Your task to perform on an android device: Clear the cart on amazon. Add "duracell triple a" to the cart on amazon, then select checkout. Image 0: 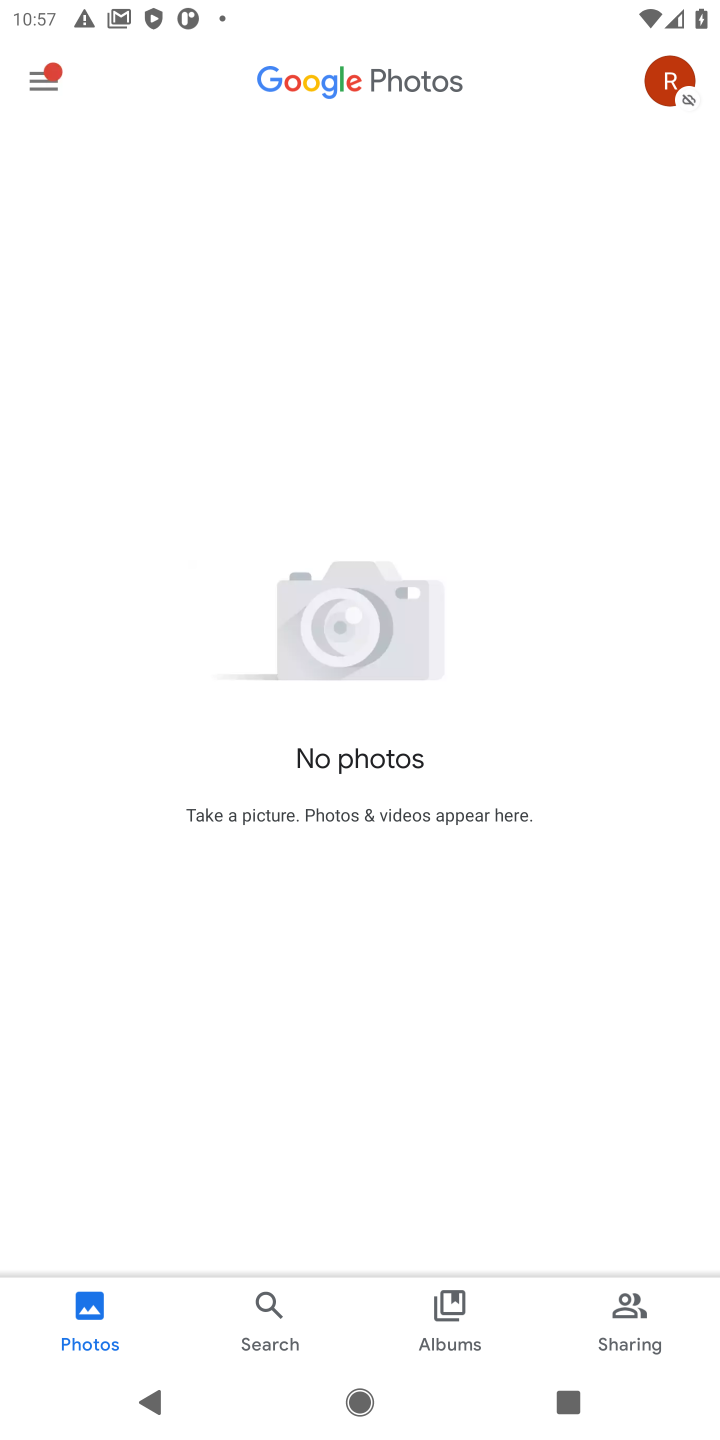
Step 0: press home button
Your task to perform on an android device: Clear the cart on amazon. Add "duracell triple a" to the cart on amazon, then select checkout. Image 1: 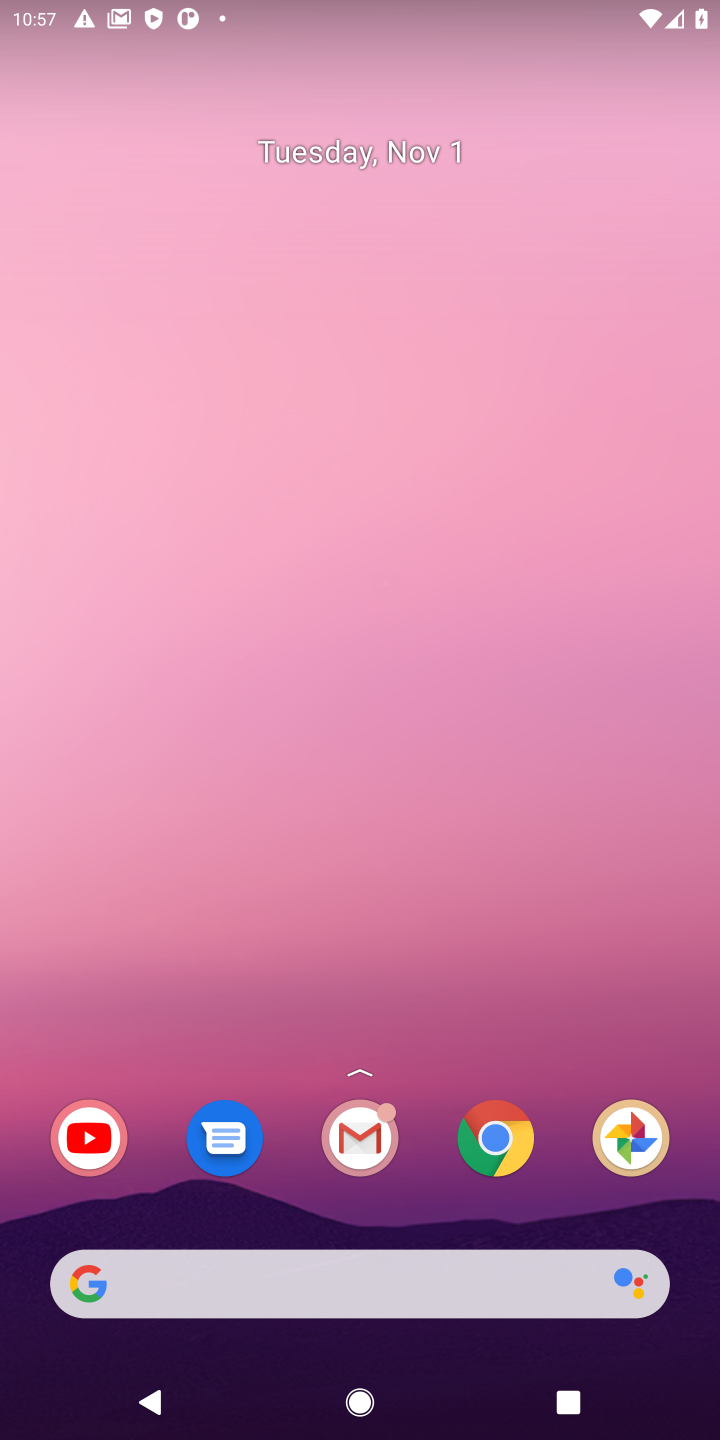
Step 1: click (482, 1135)
Your task to perform on an android device: Clear the cart on amazon. Add "duracell triple a" to the cart on amazon, then select checkout. Image 2: 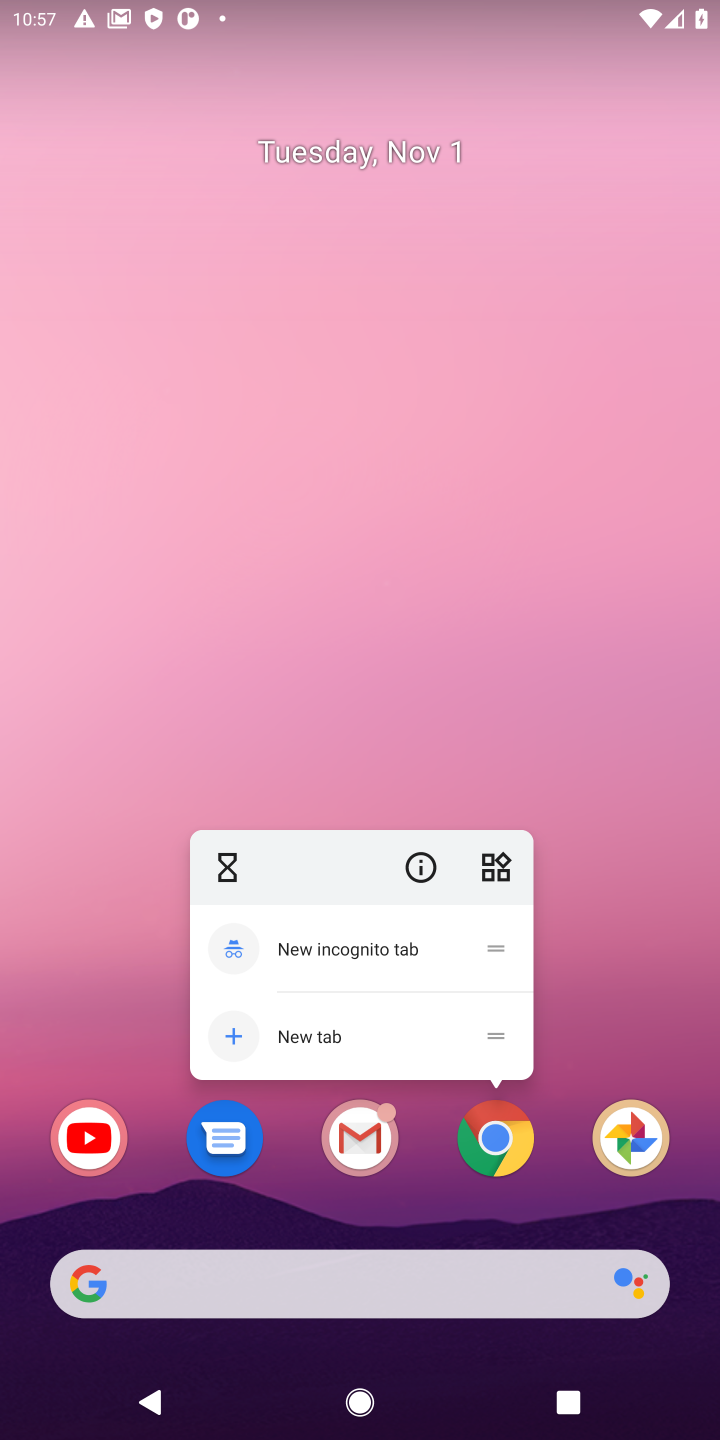
Step 2: click (493, 1137)
Your task to perform on an android device: Clear the cart on amazon. Add "duracell triple a" to the cart on amazon, then select checkout. Image 3: 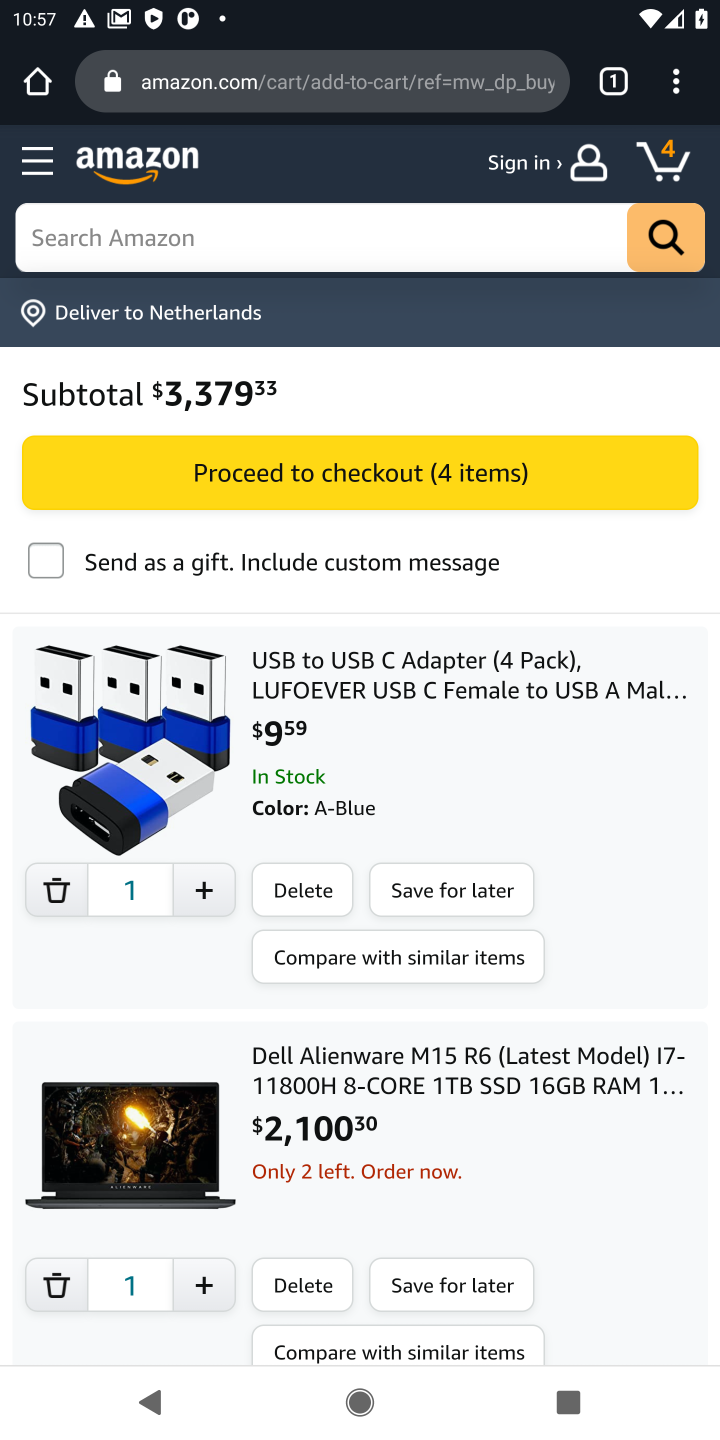
Step 3: click (301, 894)
Your task to perform on an android device: Clear the cart on amazon. Add "duracell triple a" to the cart on amazon, then select checkout. Image 4: 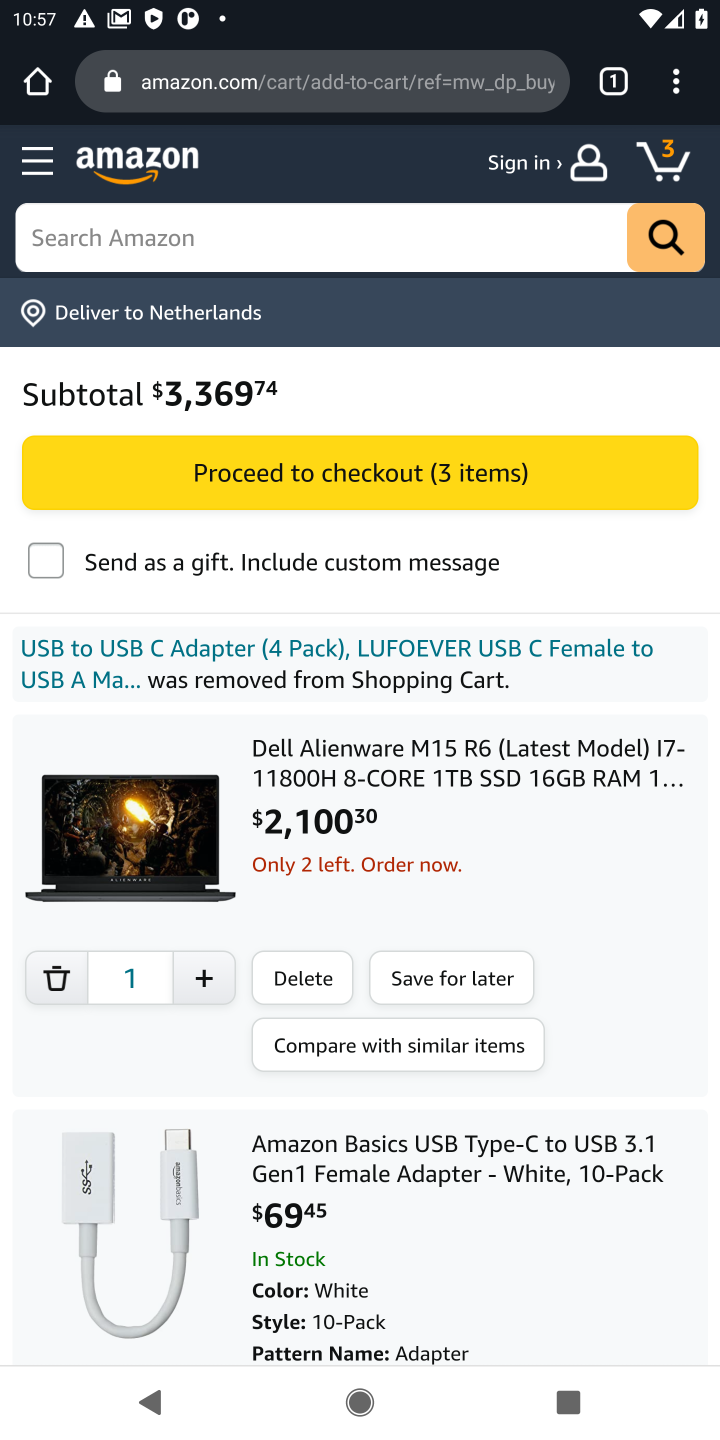
Step 4: click (304, 977)
Your task to perform on an android device: Clear the cart on amazon. Add "duracell triple a" to the cart on amazon, then select checkout. Image 5: 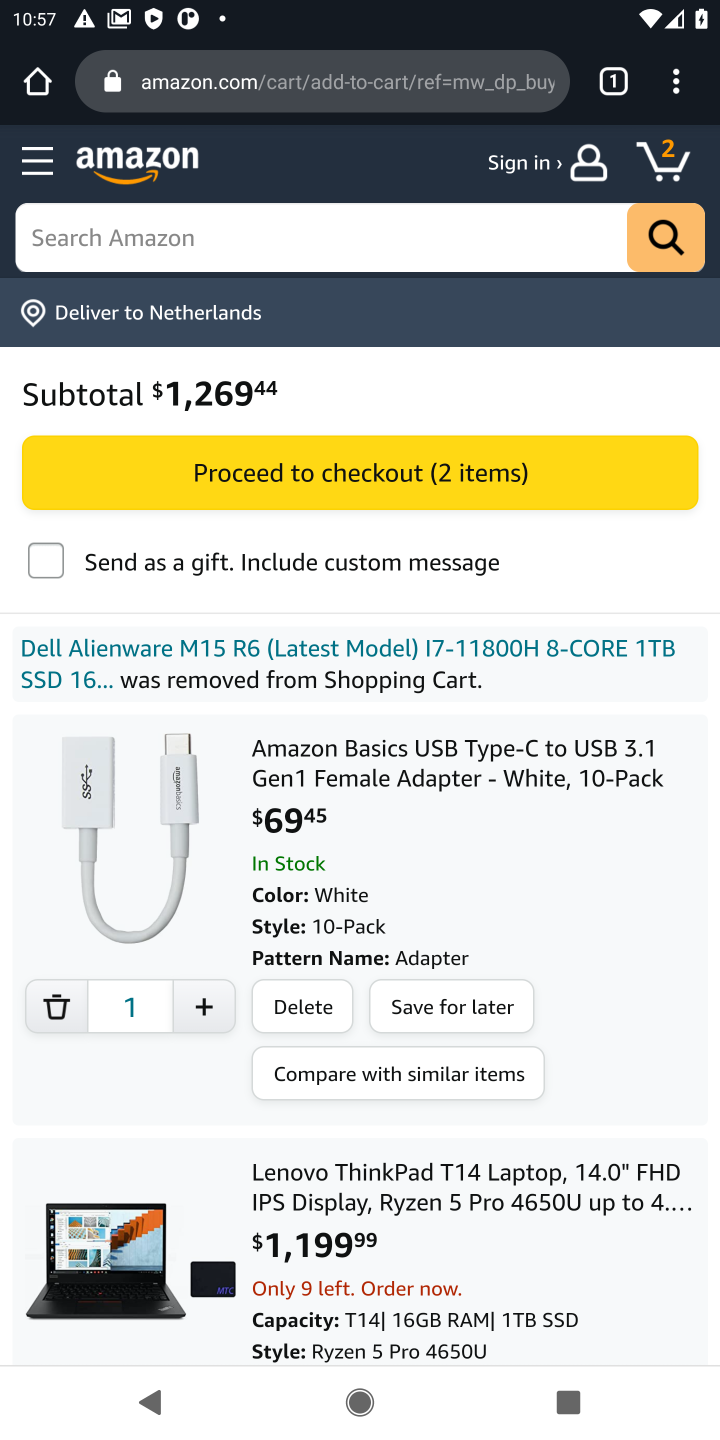
Step 5: click (297, 1018)
Your task to perform on an android device: Clear the cart on amazon. Add "duracell triple a" to the cart on amazon, then select checkout. Image 6: 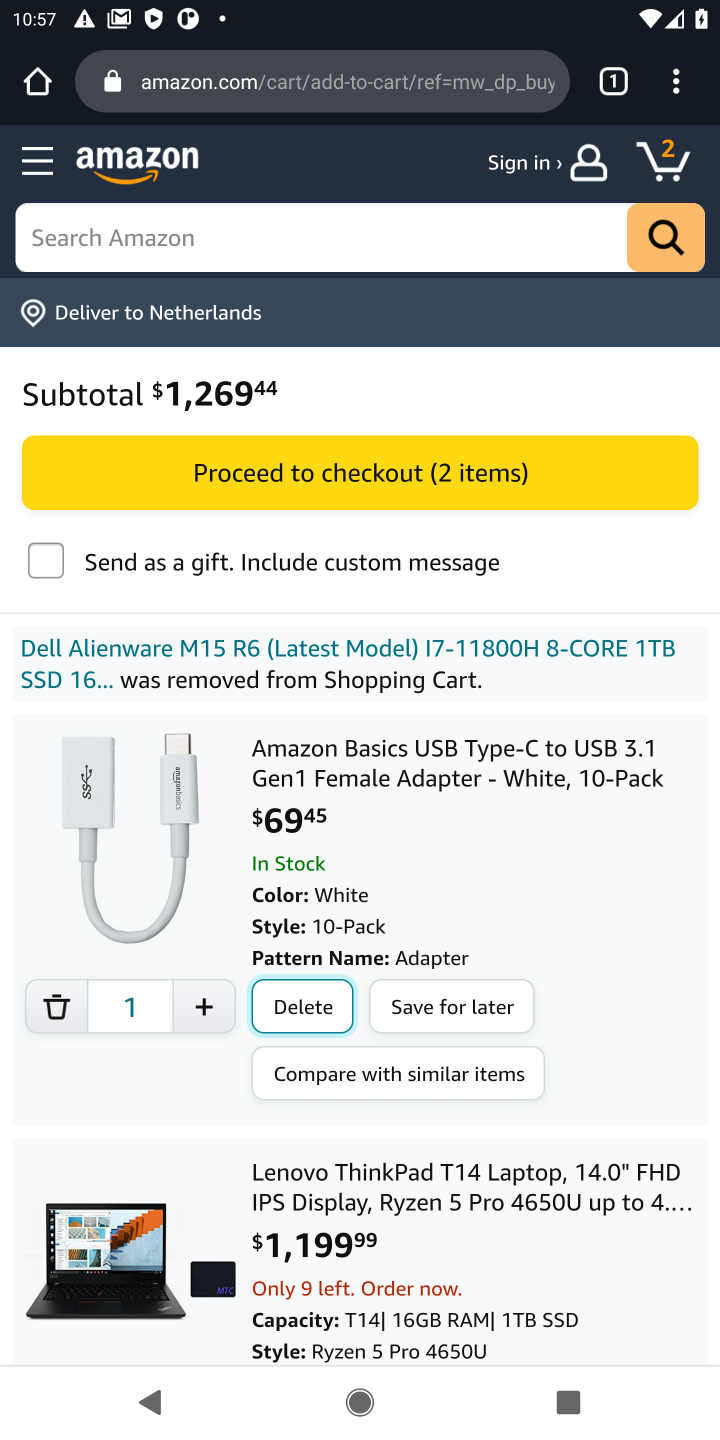
Step 6: click (287, 1015)
Your task to perform on an android device: Clear the cart on amazon. Add "duracell triple a" to the cart on amazon, then select checkout. Image 7: 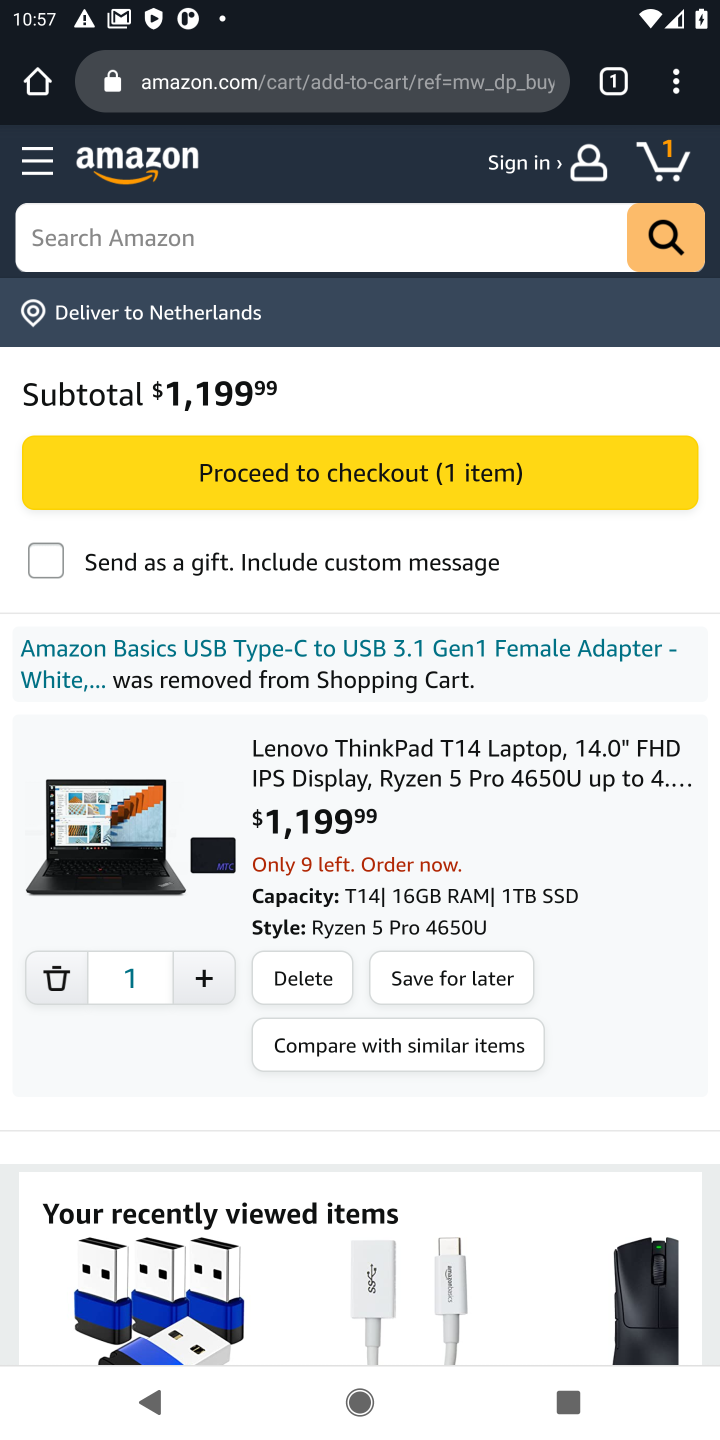
Step 7: click (301, 977)
Your task to perform on an android device: Clear the cart on amazon. Add "duracell triple a" to the cart on amazon, then select checkout. Image 8: 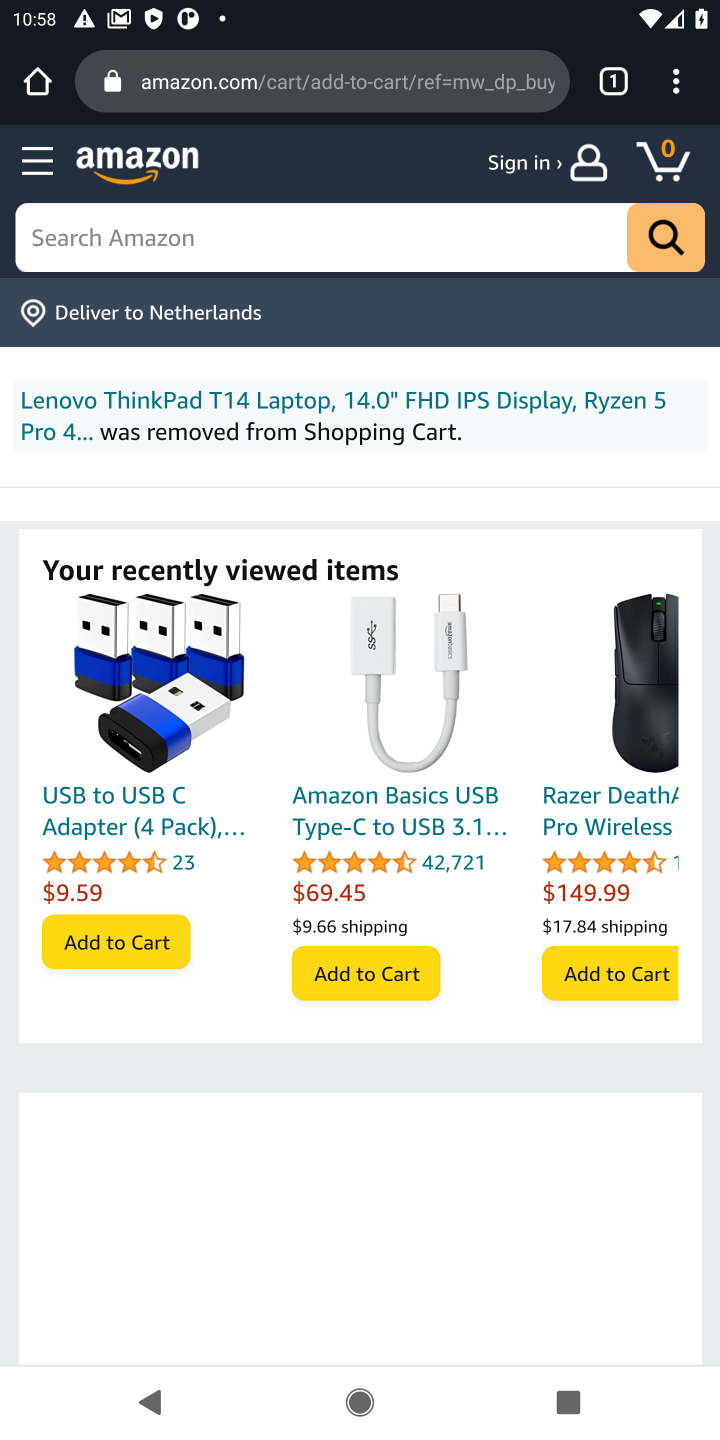
Step 8: click (440, 229)
Your task to perform on an android device: Clear the cart on amazon. Add "duracell triple a" to the cart on amazon, then select checkout. Image 9: 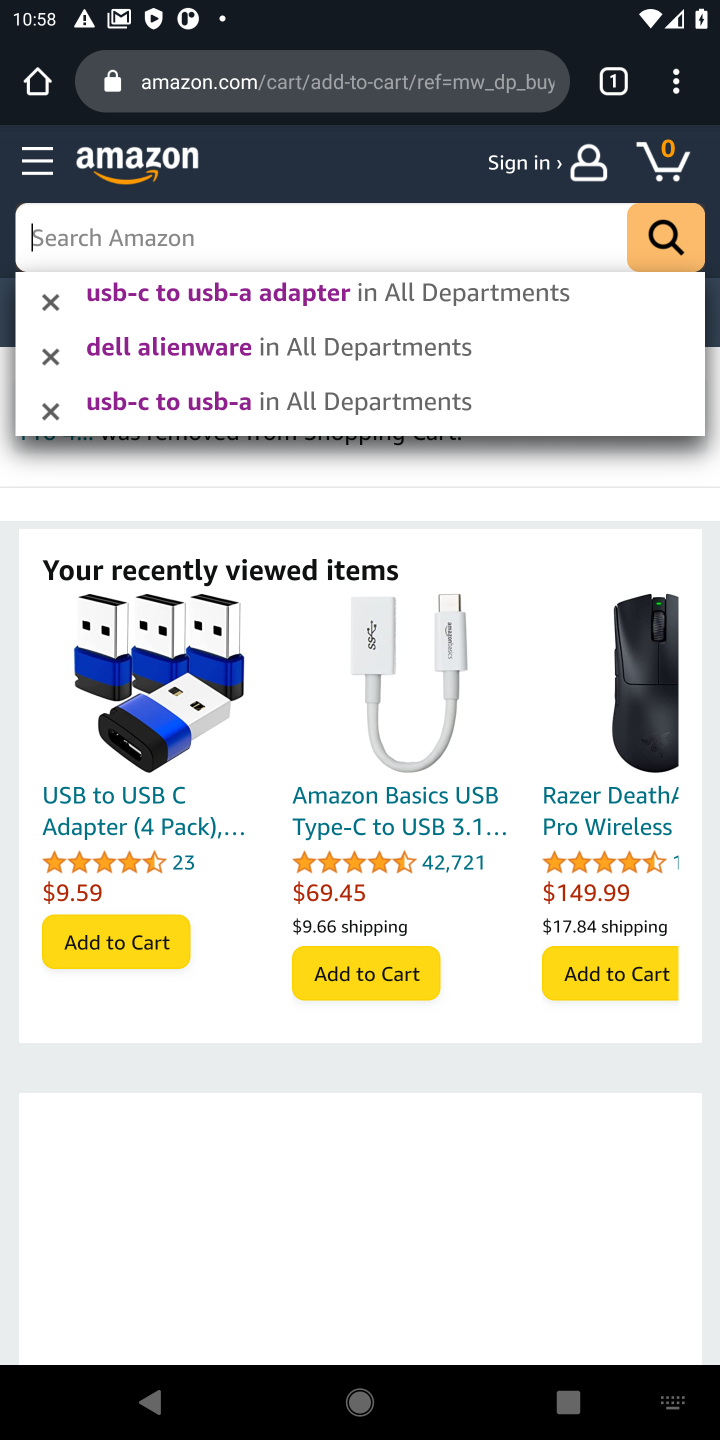
Step 9: type "duracell triple a"
Your task to perform on an android device: Clear the cart on amazon. Add "duracell triple a" to the cart on amazon, then select checkout. Image 10: 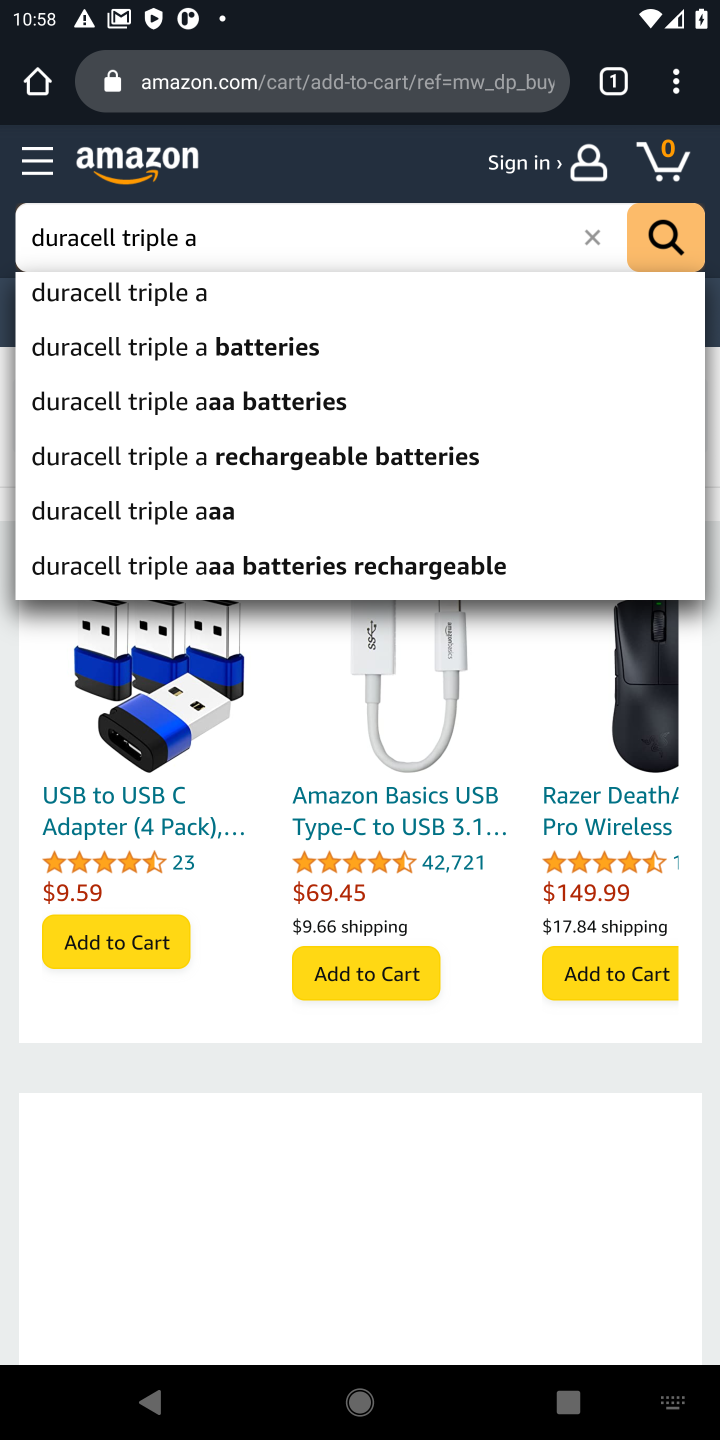
Step 10: click (192, 292)
Your task to perform on an android device: Clear the cart on amazon. Add "duracell triple a" to the cart on amazon, then select checkout. Image 11: 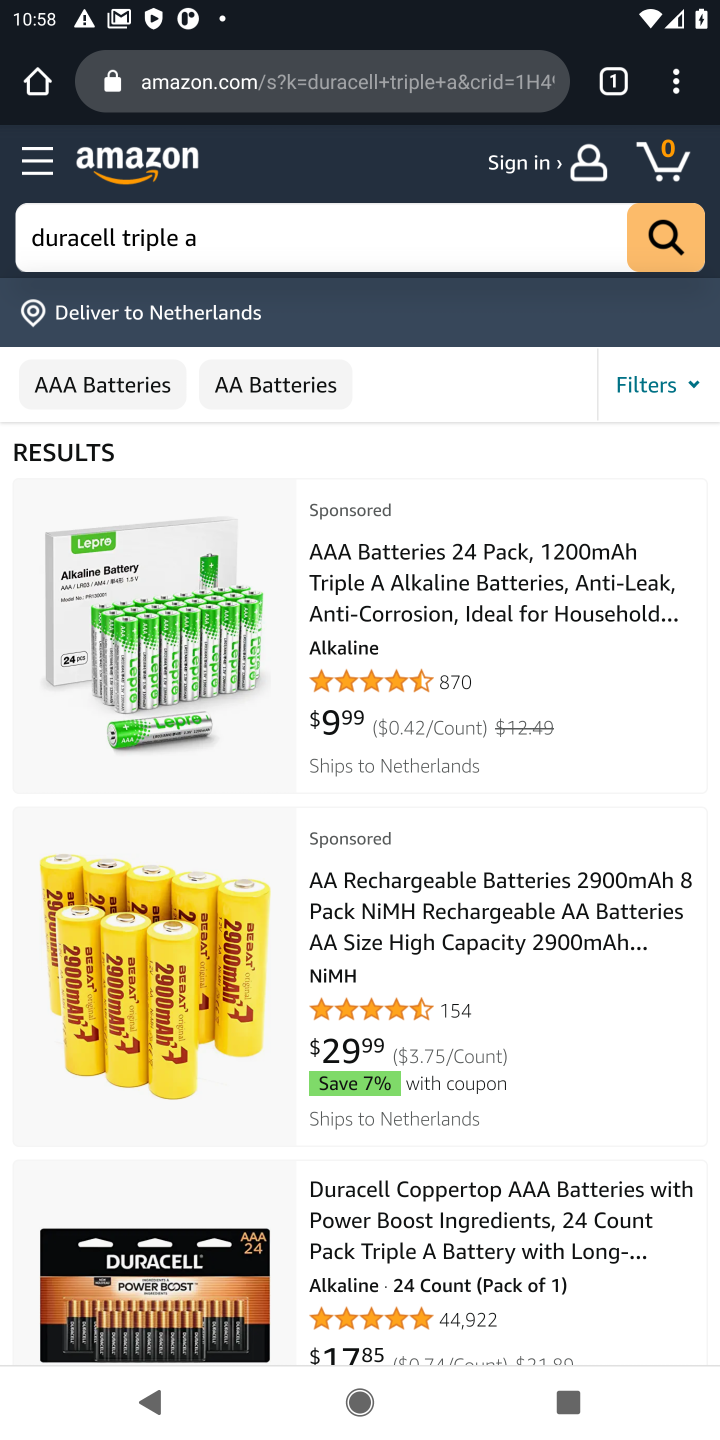
Step 11: click (174, 1305)
Your task to perform on an android device: Clear the cart on amazon. Add "duracell triple a" to the cart on amazon, then select checkout. Image 12: 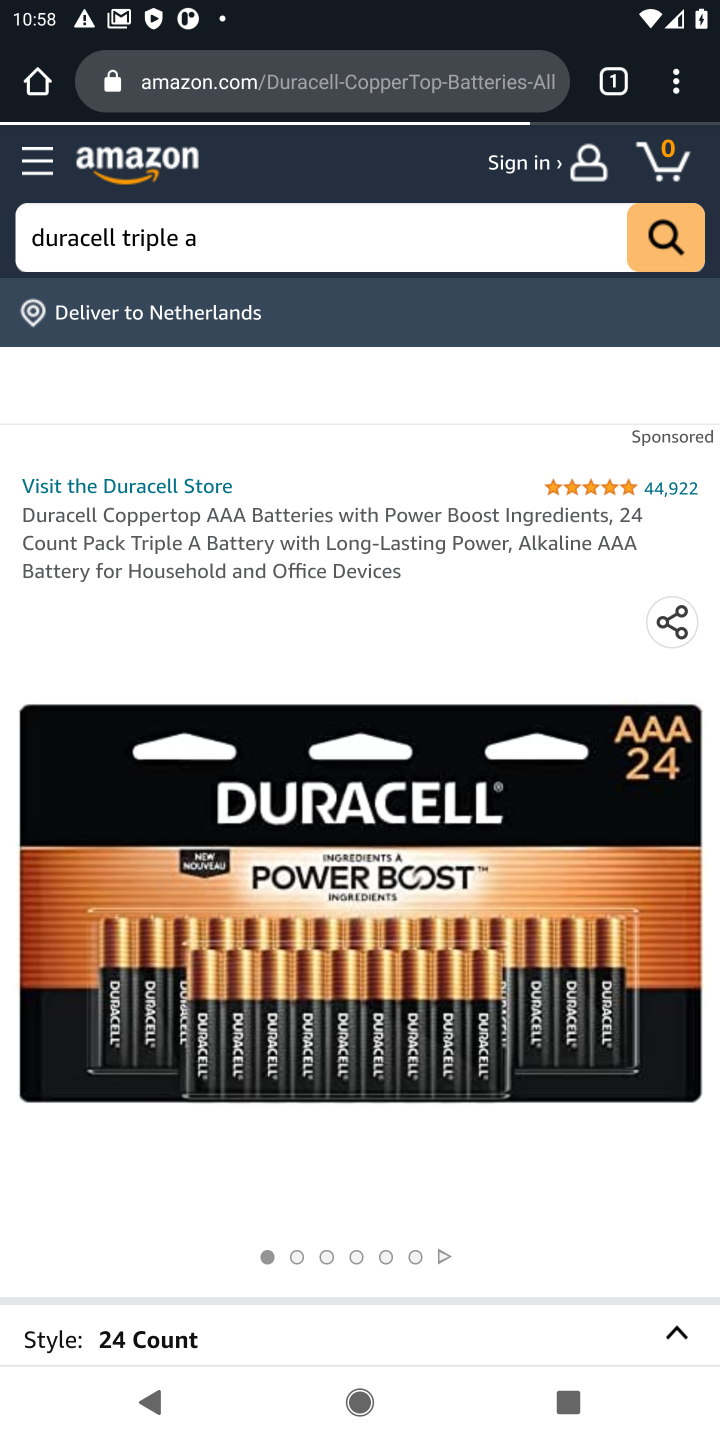
Step 12: drag from (398, 837) to (413, 195)
Your task to perform on an android device: Clear the cart on amazon. Add "duracell triple a" to the cart on amazon, then select checkout. Image 13: 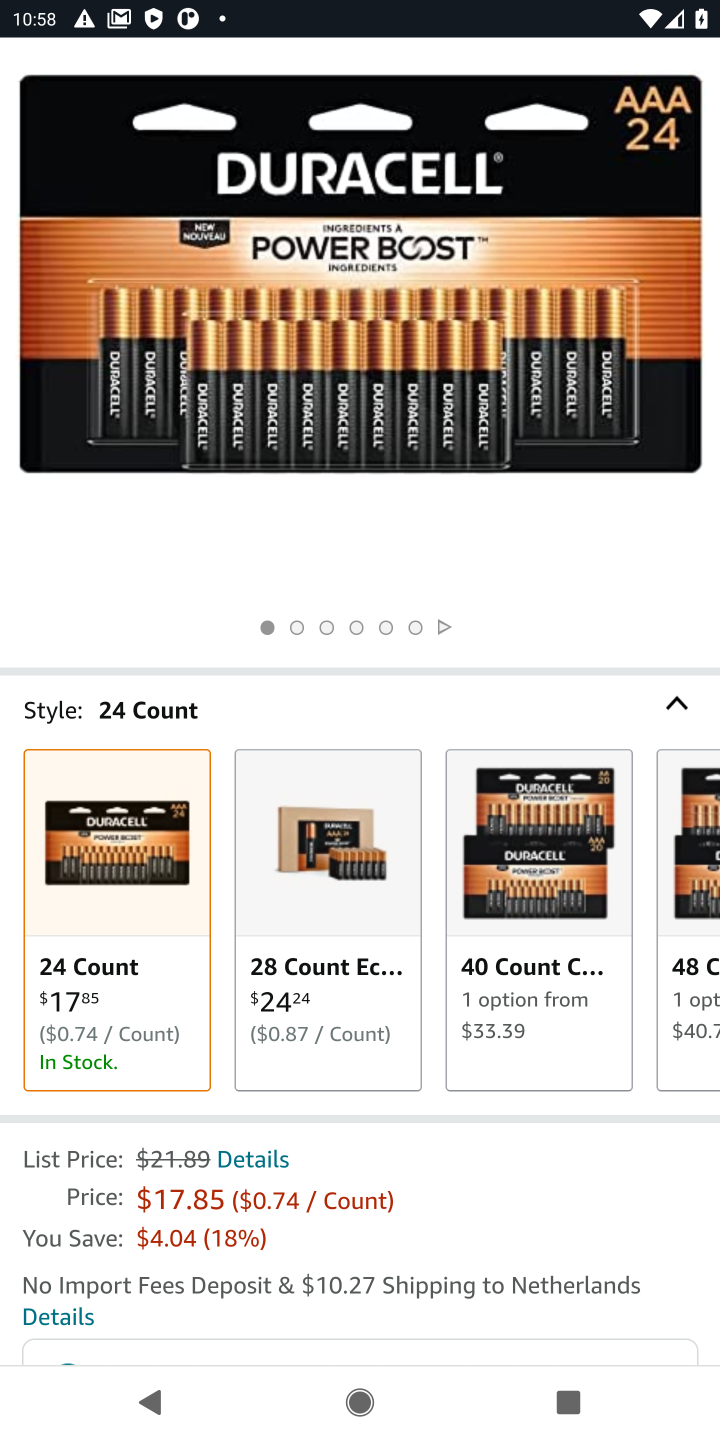
Step 13: drag from (349, 947) to (370, 323)
Your task to perform on an android device: Clear the cart on amazon. Add "duracell triple a" to the cart on amazon, then select checkout. Image 14: 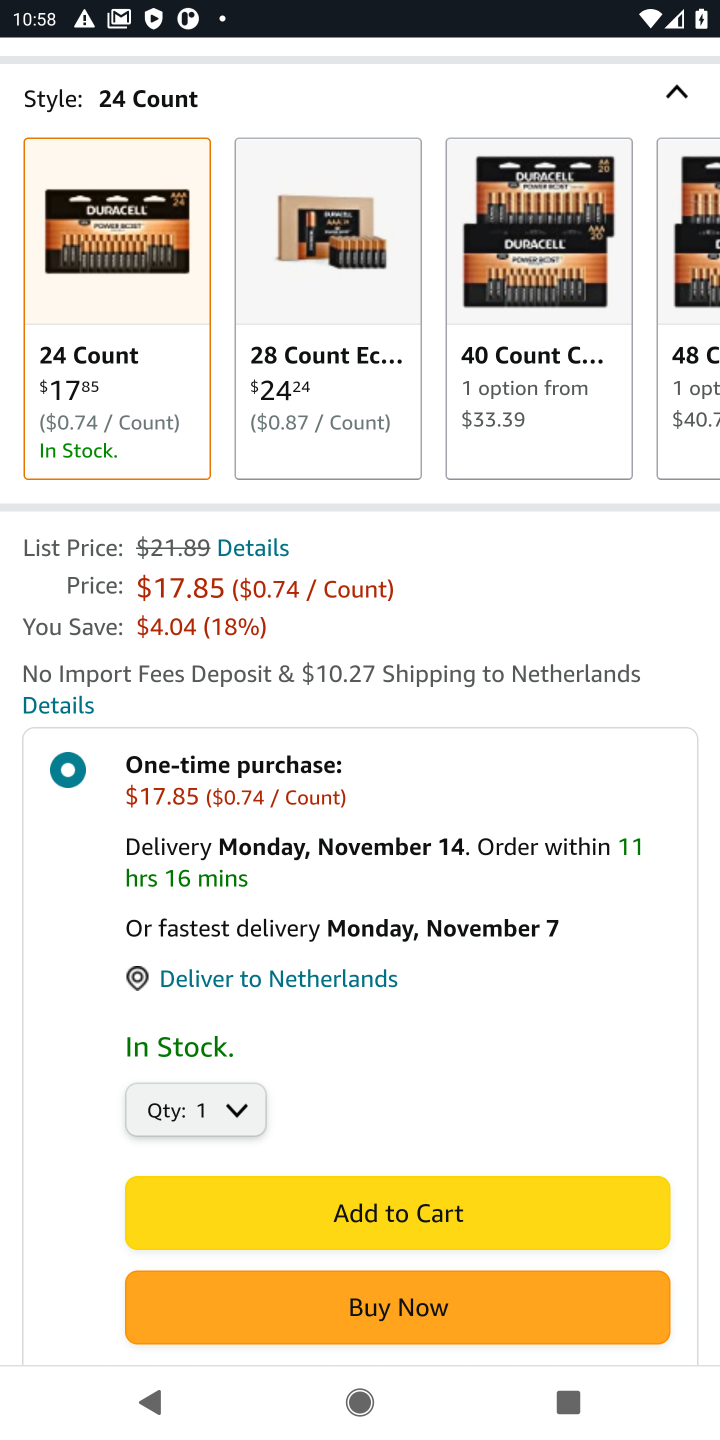
Step 14: click (337, 1220)
Your task to perform on an android device: Clear the cart on amazon. Add "duracell triple a" to the cart on amazon, then select checkout. Image 15: 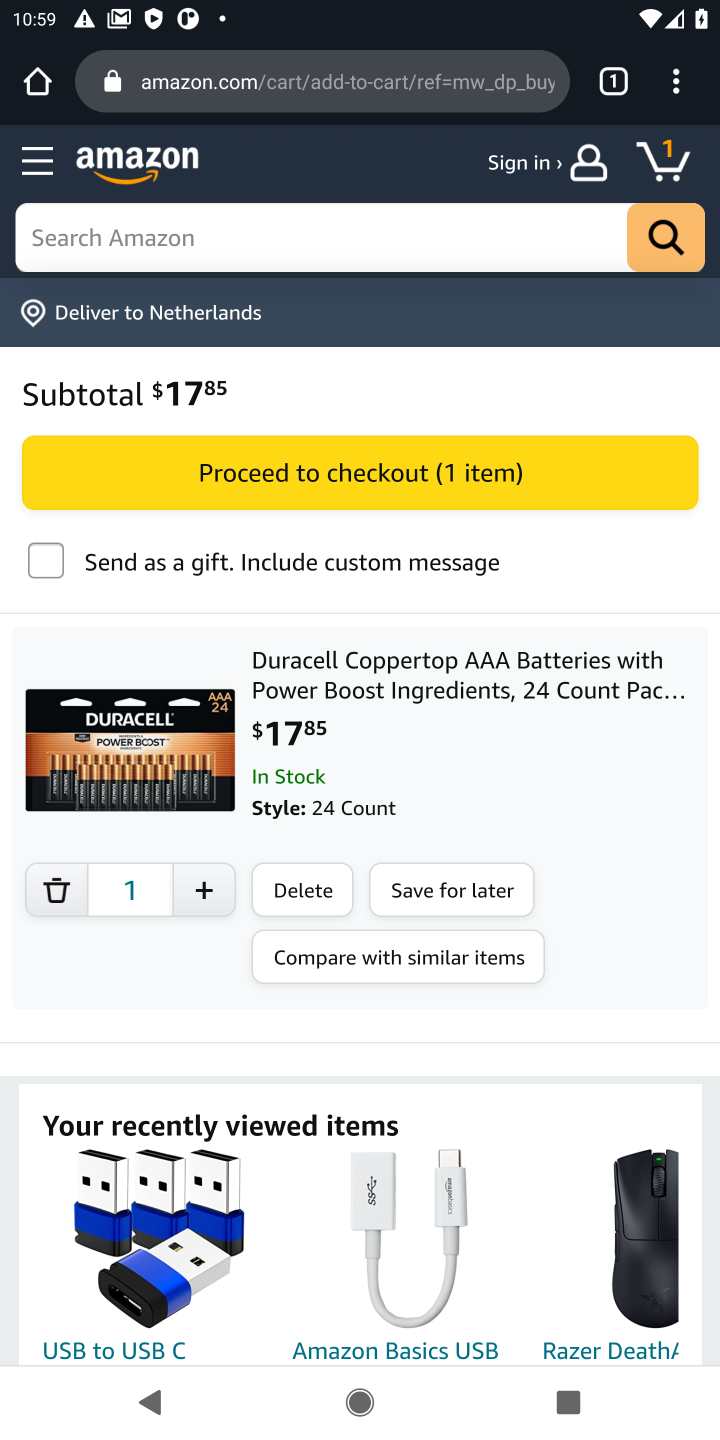
Step 15: click (305, 477)
Your task to perform on an android device: Clear the cart on amazon. Add "duracell triple a" to the cart on amazon, then select checkout. Image 16: 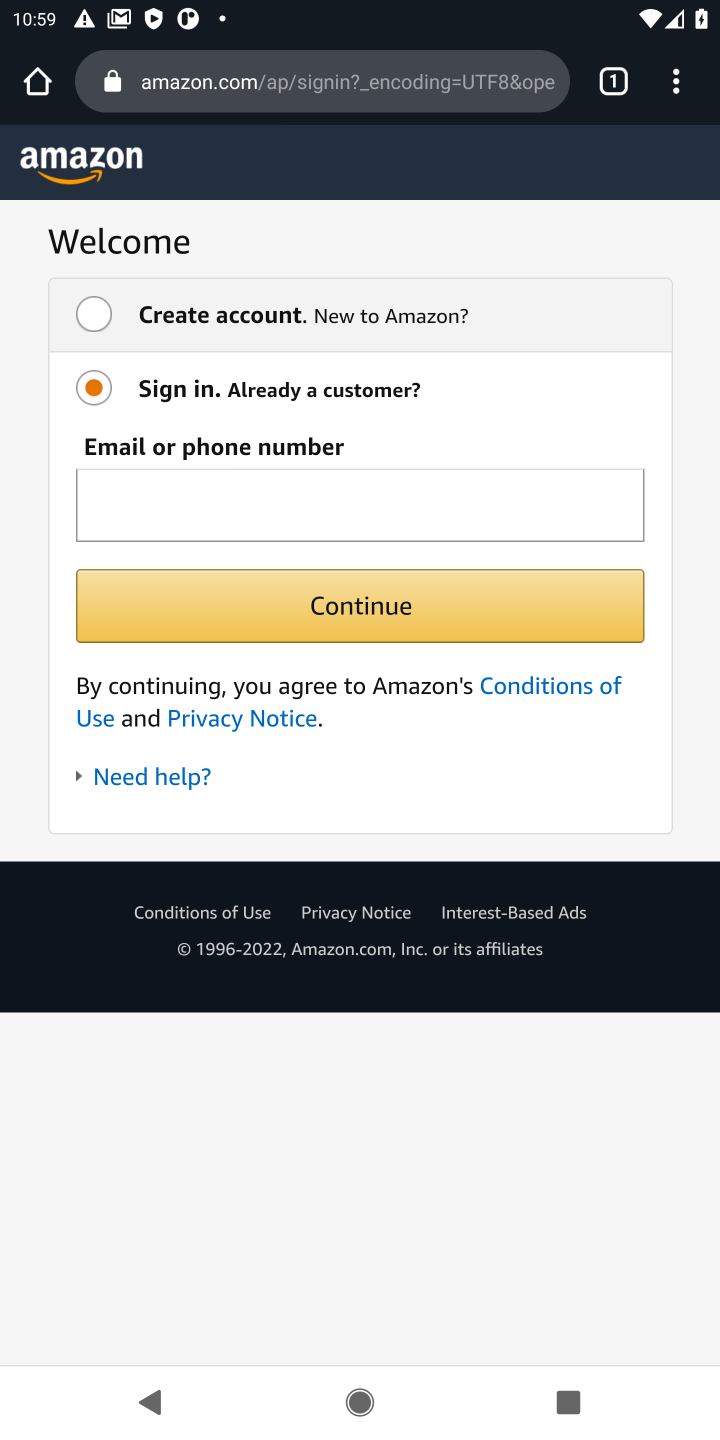
Step 16: task complete